Your task to perform on an android device: Open the Play Movies app and select the watchlist tab. Image 0: 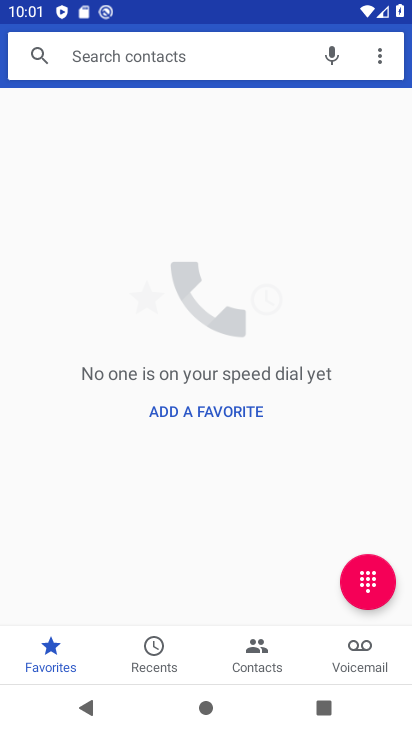
Step 0: press home button
Your task to perform on an android device: Open the Play Movies app and select the watchlist tab. Image 1: 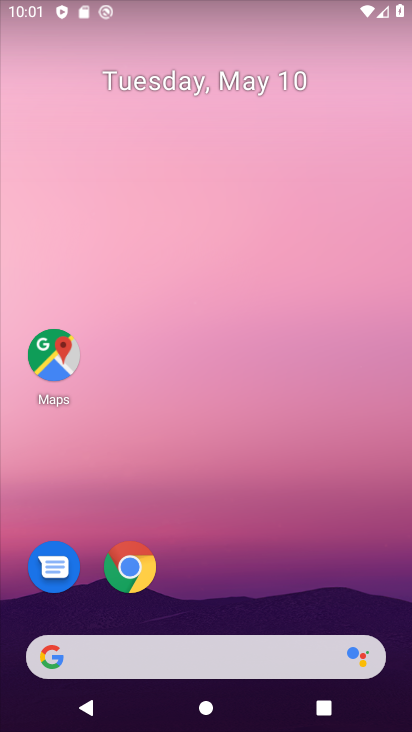
Step 1: drag from (224, 599) to (368, 32)
Your task to perform on an android device: Open the Play Movies app and select the watchlist tab. Image 2: 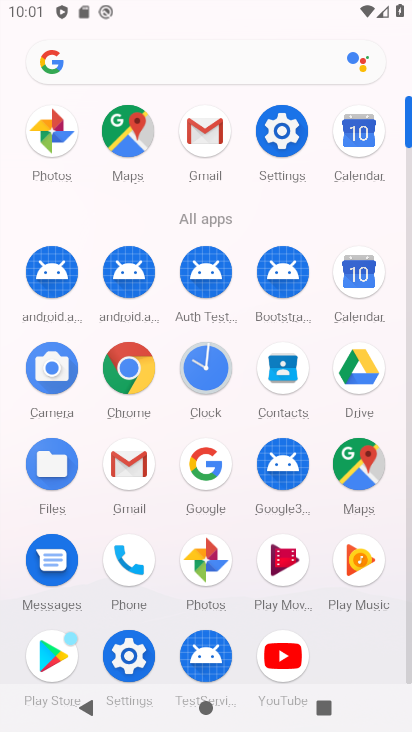
Step 2: click (350, 566)
Your task to perform on an android device: Open the Play Movies app and select the watchlist tab. Image 3: 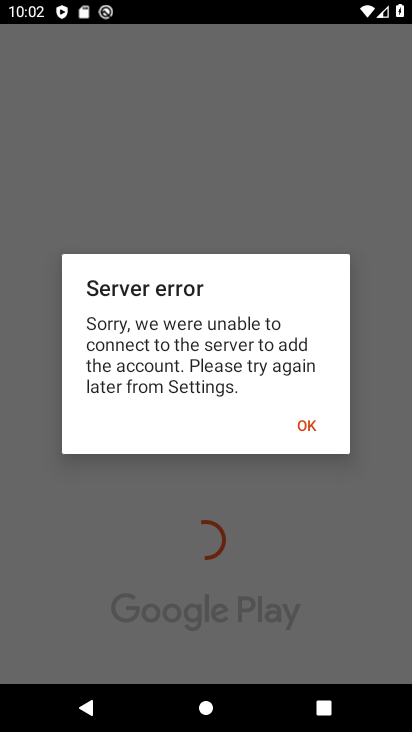
Step 3: click (308, 428)
Your task to perform on an android device: Open the Play Movies app and select the watchlist tab. Image 4: 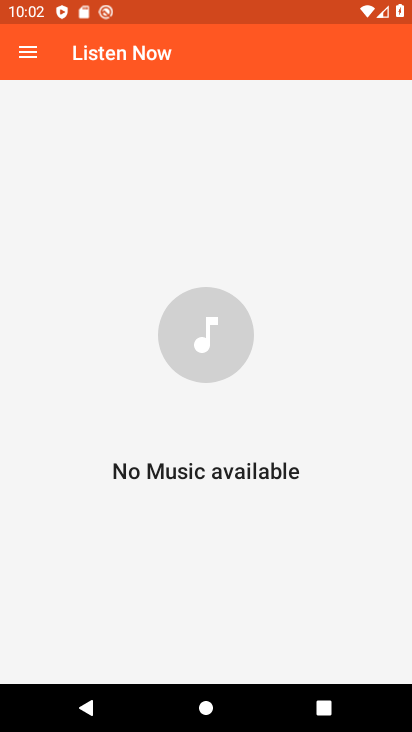
Step 4: task complete